Your task to perform on an android device: Show the shopping cart on newegg. Search for "razer blade" on newegg, select the first entry, and add it to the cart. Image 0: 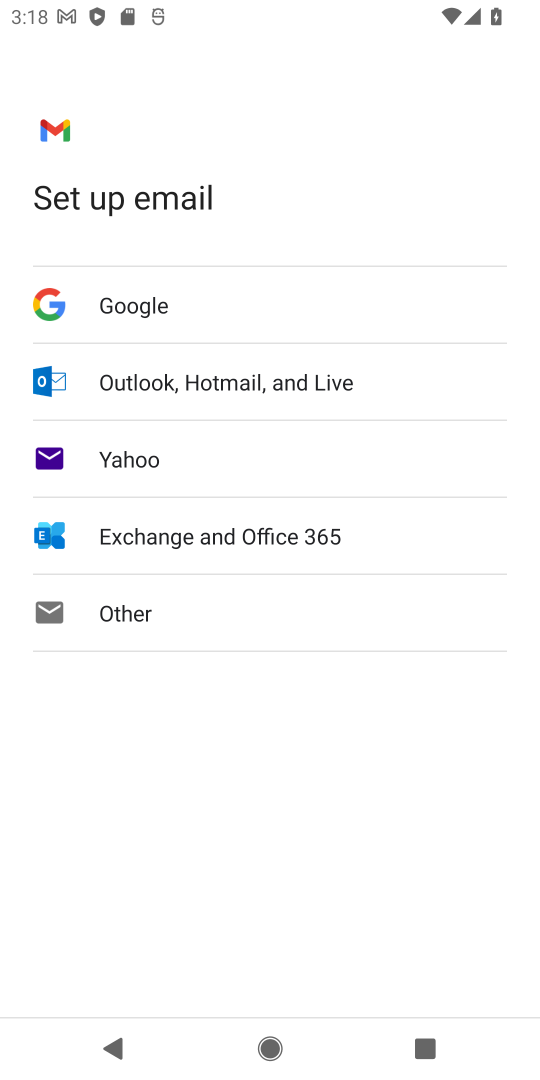
Step 0: press home button
Your task to perform on an android device: Show the shopping cart on newegg. Search for "razer blade" on newegg, select the first entry, and add it to the cart. Image 1: 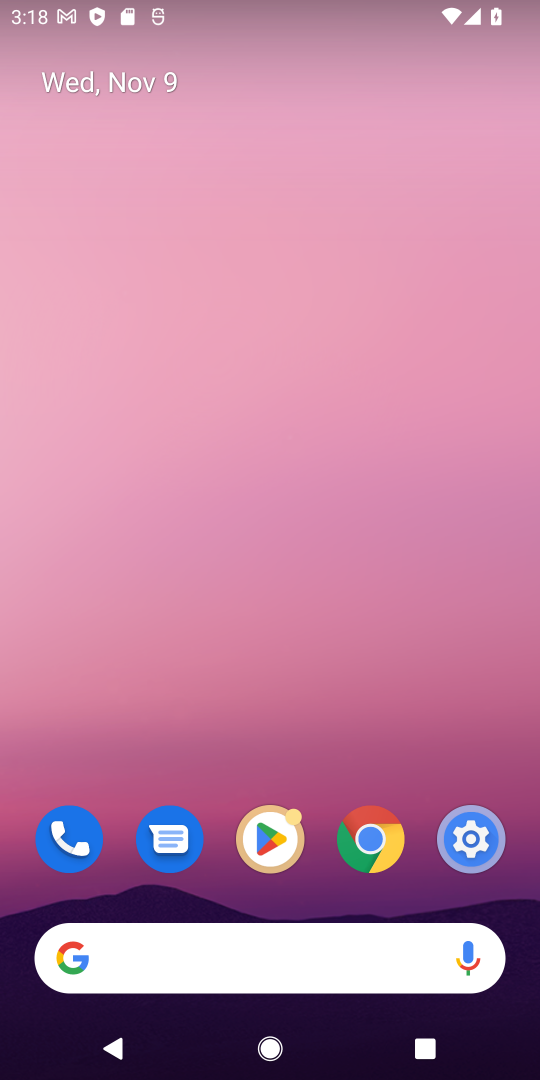
Step 1: click (259, 958)
Your task to perform on an android device: Show the shopping cart on newegg. Search for "razer blade" on newegg, select the first entry, and add it to the cart. Image 2: 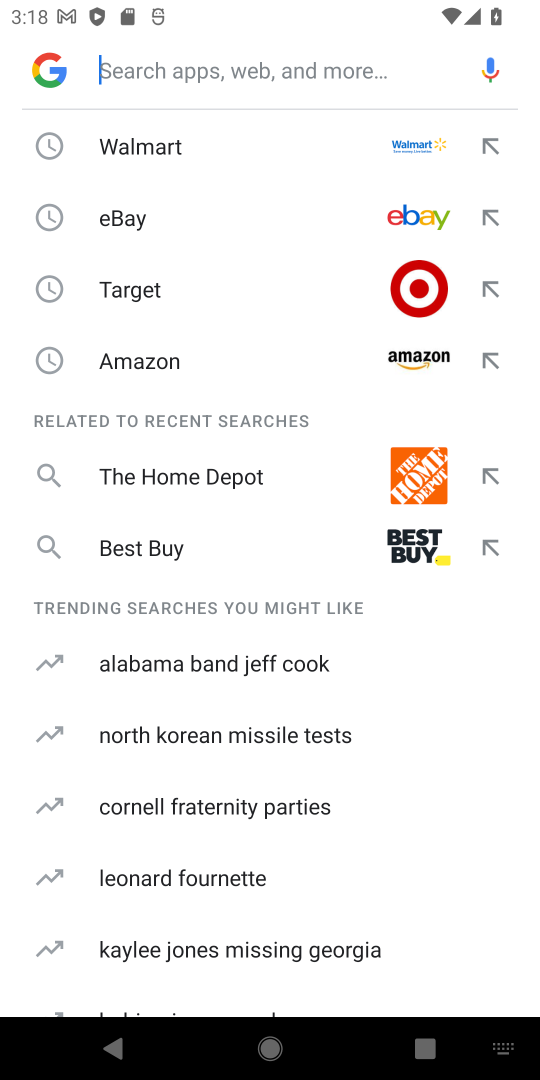
Step 2: type "newegg"
Your task to perform on an android device: Show the shopping cart on newegg. Search for "razer blade" on newegg, select the first entry, and add it to the cart. Image 3: 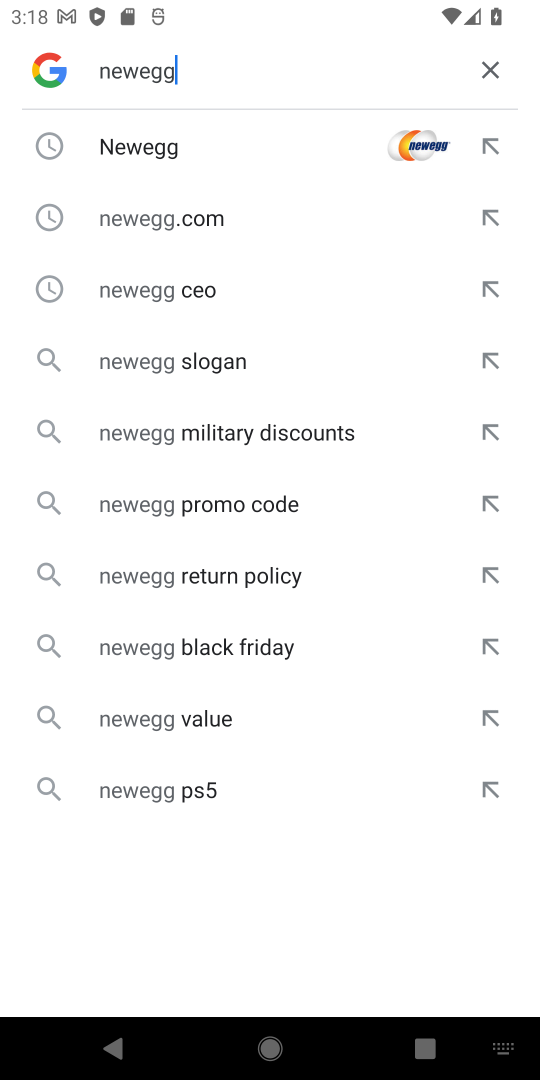
Step 3: click (166, 122)
Your task to perform on an android device: Show the shopping cart on newegg. Search for "razer blade" on newegg, select the first entry, and add it to the cart. Image 4: 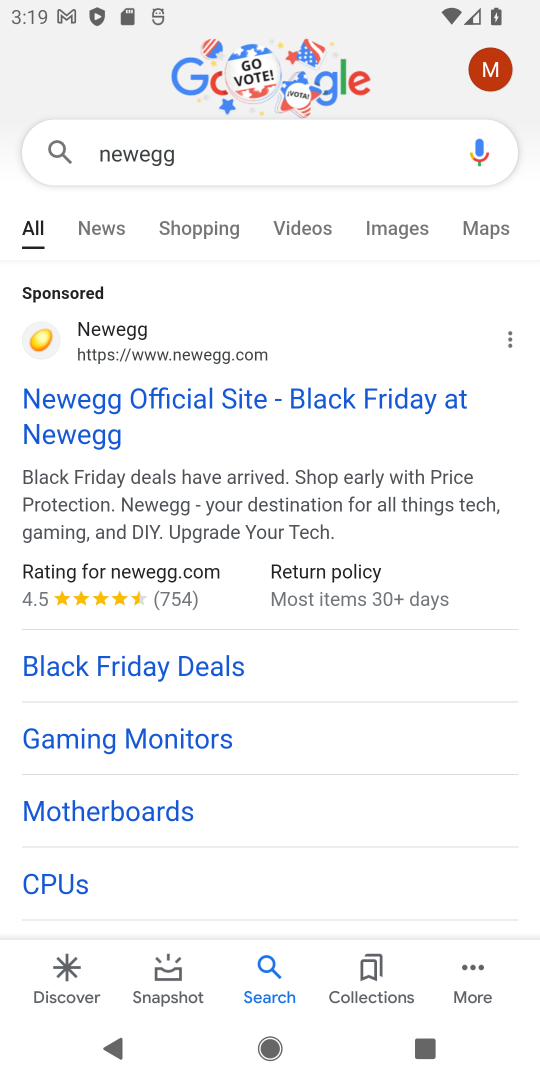
Step 4: click (165, 397)
Your task to perform on an android device: Show the shopping cart on newegg. Search for "razer blade" on newegg, select the first entry, and add it to the cart. Image 5: 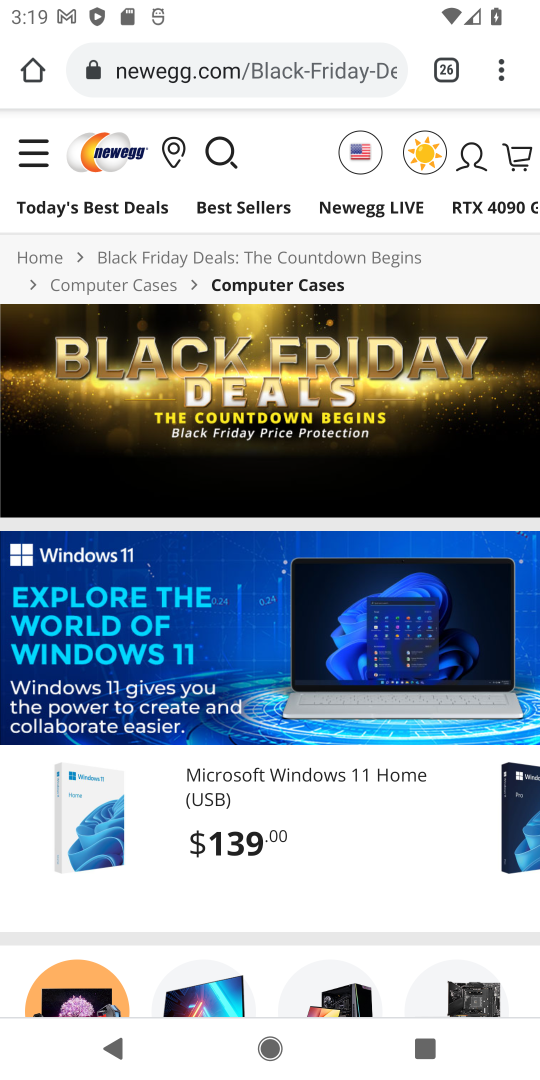
Step 5: task complete